Your task to perform on an android device: find snoozed emails in the gmail app Image 0: 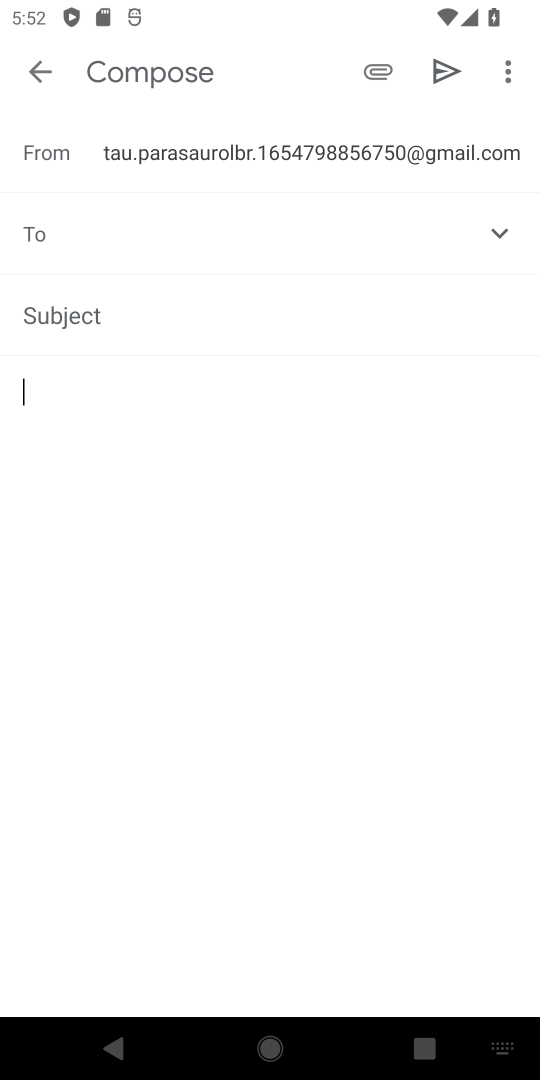
Step 0: press home button
Your task to perform on an android device: find snoozed emails in the gmail app Image 1: 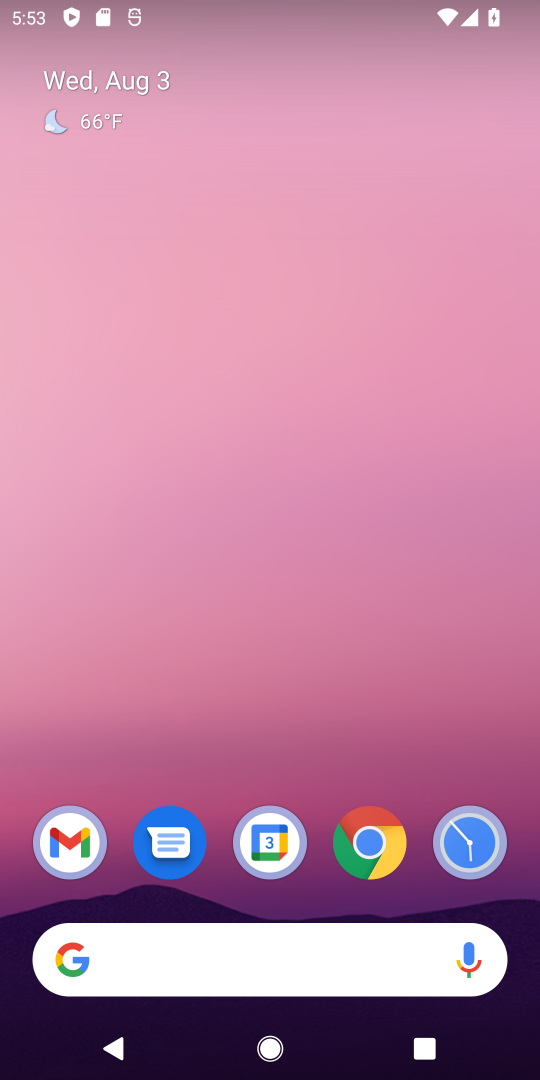
Step 1: click (54, 854)
Your task to perform on an android device: find snoozed emails in the gmail app Image 2: 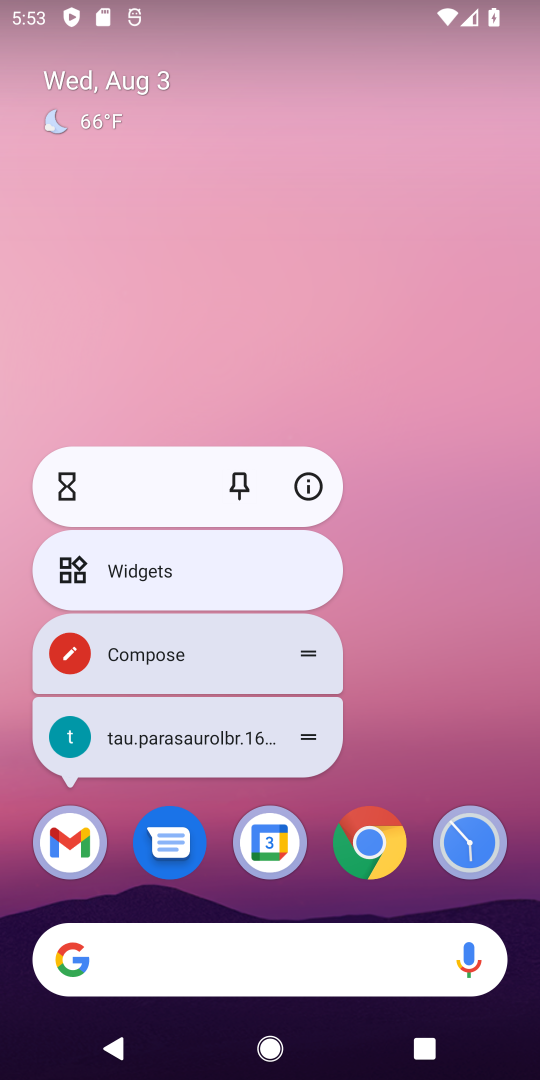
Step 2: click (54, 854)
Your task to perform on an android device: find snoozed emails in the gmail app Image 3: 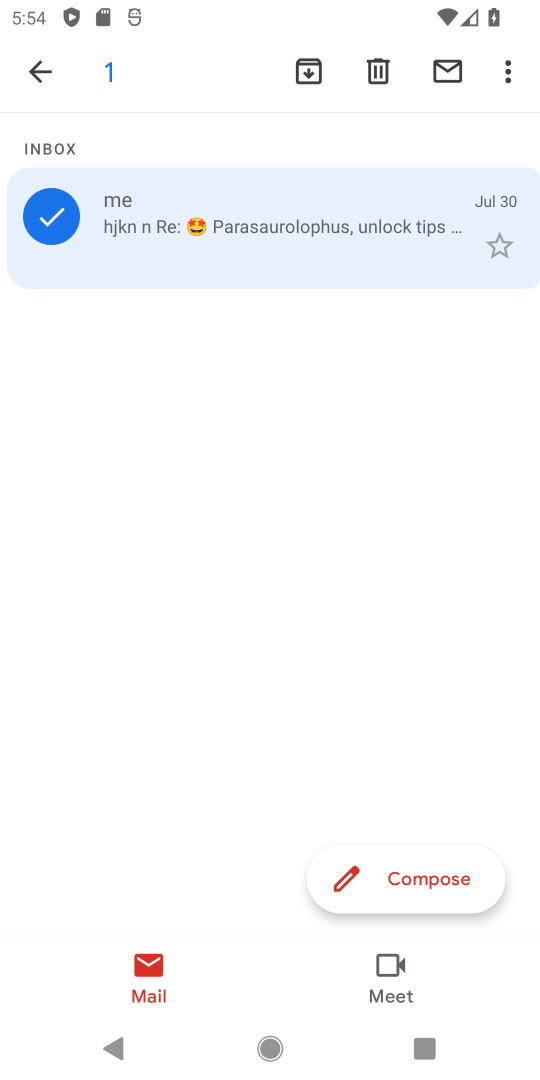
Step 3: click (50, 72)
Your task to perform on an android device: find snoozed emails in the gmail app Image 4: 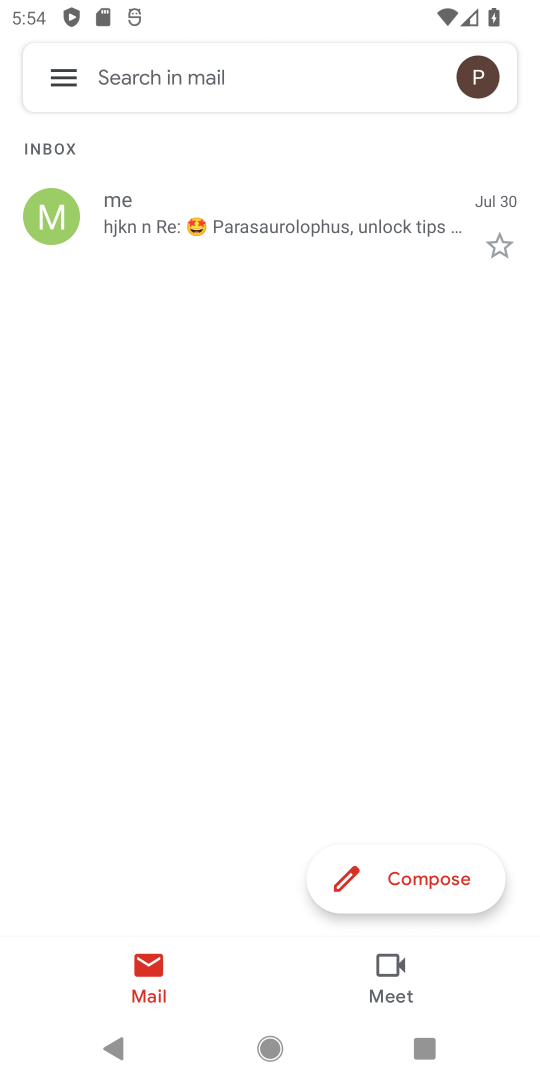
Step 4: click (50, 72)
Your task to perform on an android device: find snoozed emails in the gmail app Image 5: 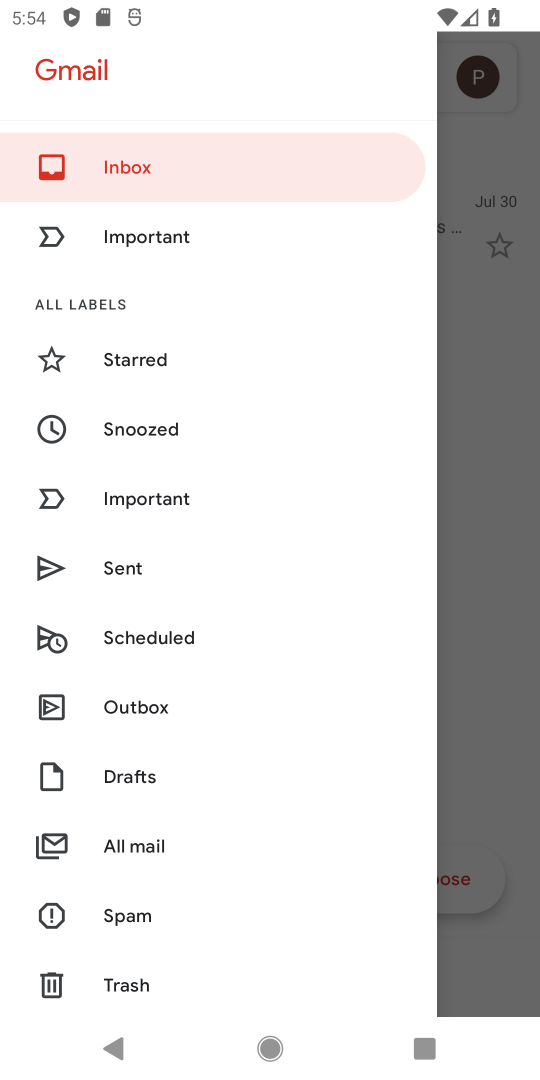
Step 5: click (183, 420)
Your task to perform on an android device: find snoozed emails in the gmail app Image 6: 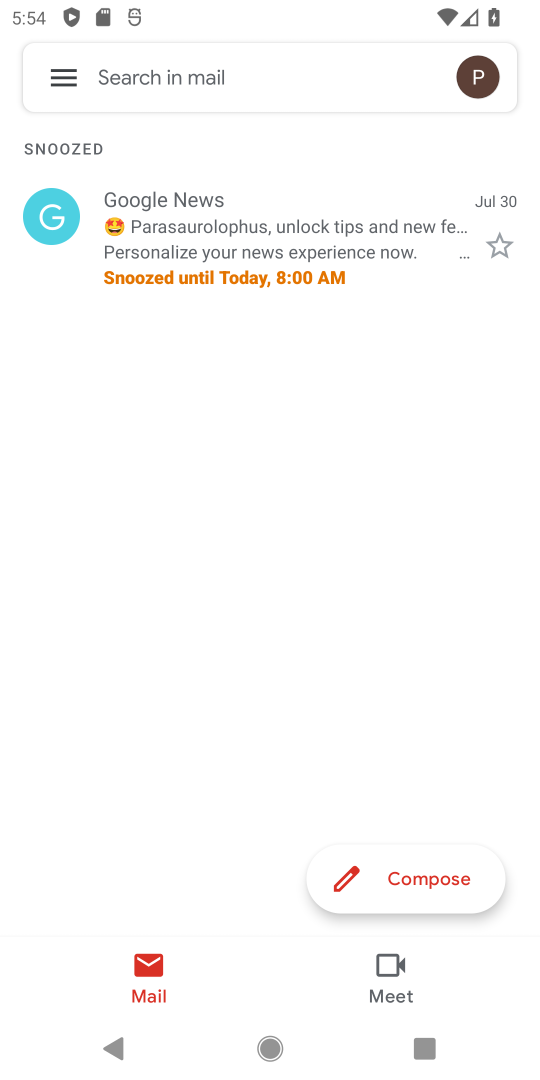
Step 6: task complete